Your task to perform on an android device: turn vacation reply on in the gmail app Image 0: 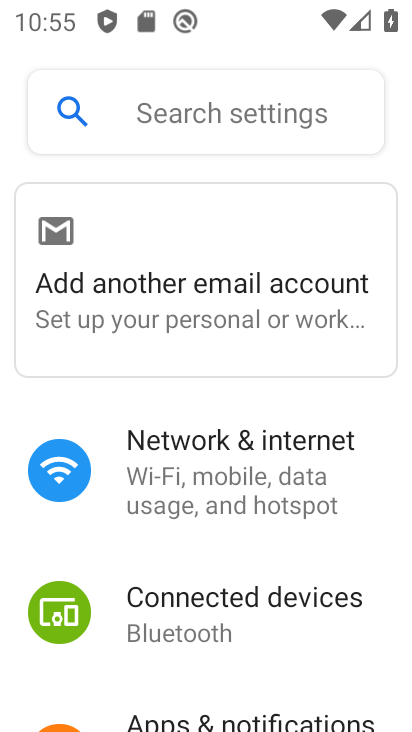
Step 0: press home button
Your task to perform on an android device: turn vacation reply on in the gmail app Image 1: 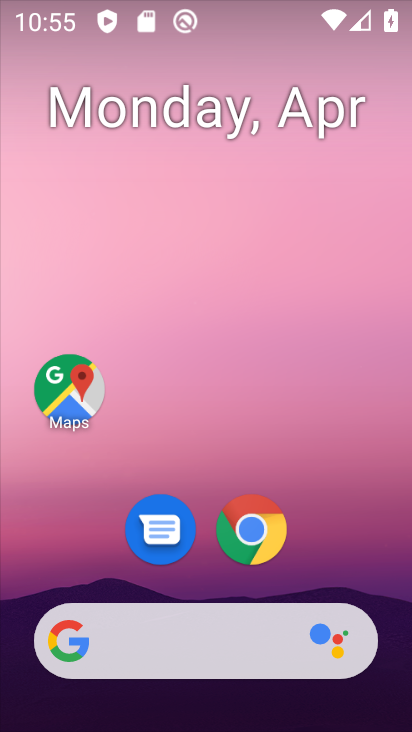
Step 1: drag from (357, 587) to (179, 25)
Your task to perform on an android device: turn vacation reply on in the gmail app Image 2: 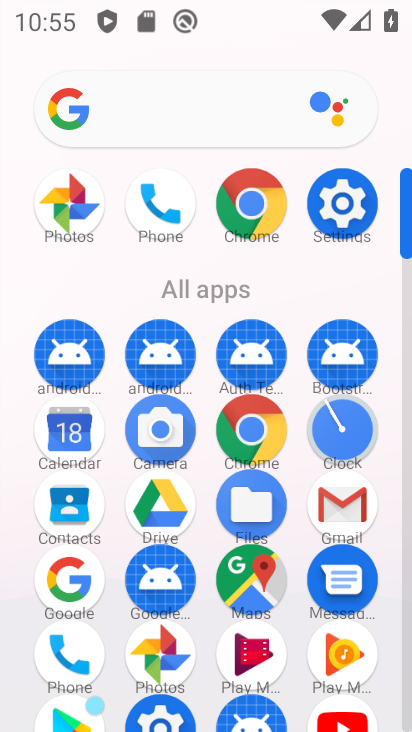
Step 2: click (341, 521)
Your task to perform on an android device: turn vacation reply on in the gmail app Image 3: 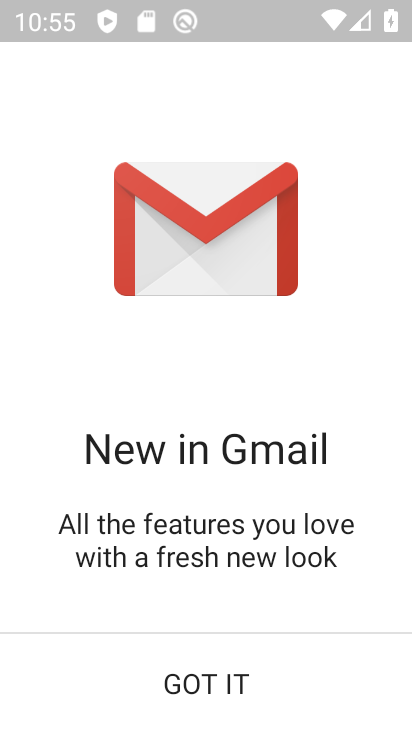
Step 3: click (193, 703)
Your task to perform on an android device: turn vacation reply on in the gmail app Image 4: 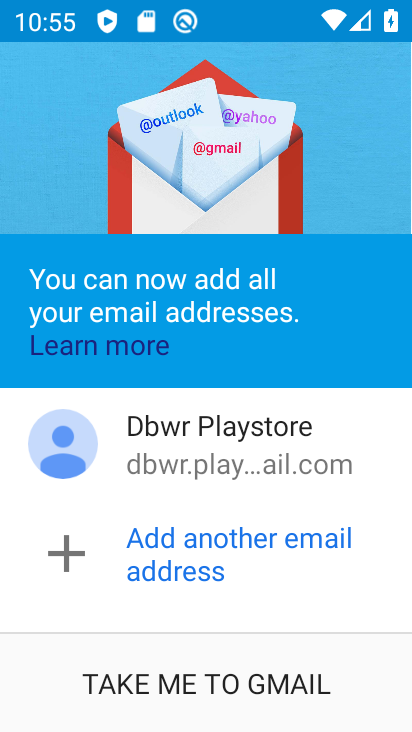
Step 4: click (280, 670)
Your task to perform on an android device: turn vacation reply on in the gmail app Image 5: 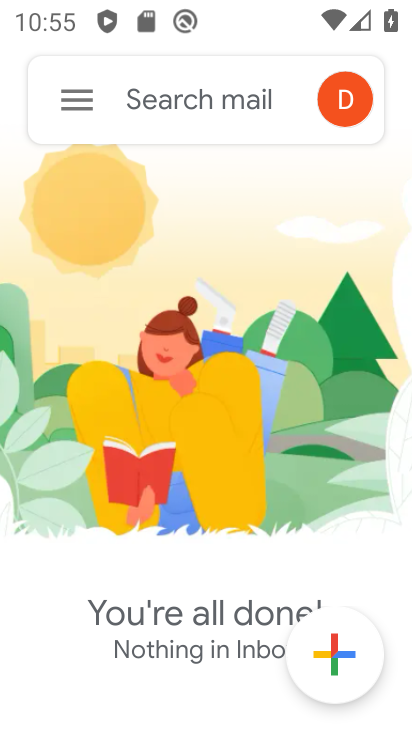
Step 5: click (59, 99)
Your task to perform on an android device: turn vacation reply on in the gmail app Image 6: 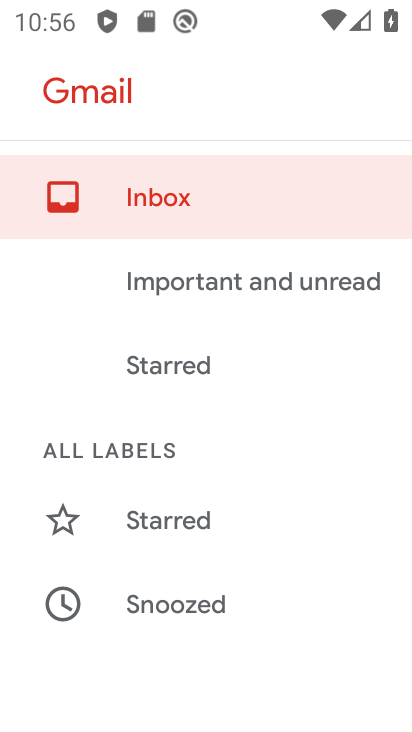
Step 6: drag from (122, 621) to (184, 139)
Your task to perform on an android device: turn vacation reply on in the gmail app Image 7: 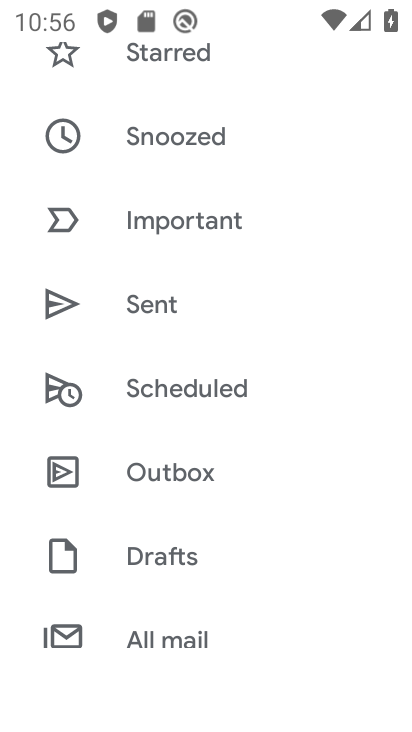
Step 7: drag from (160, 615) to (184, 90)
Your task to perform on an android device: turn vacation reply on in the gmail app Image 8: 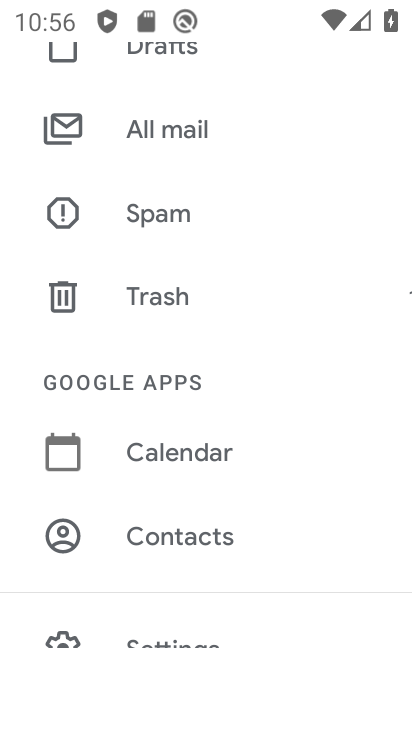
Step 8: click (147, 634)
Your task to perform on an android device: turn vacation reply on in the gmail app Image 9: 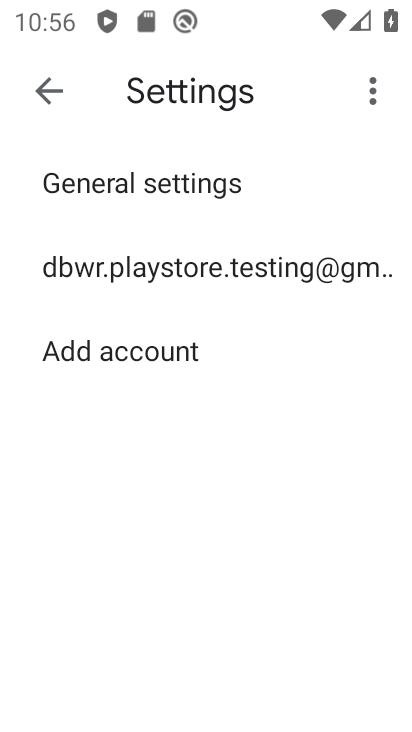
Step 9: click (223, 272)
Your task to perform on an android device: turn vacation reply on in the gmail app Image 10: 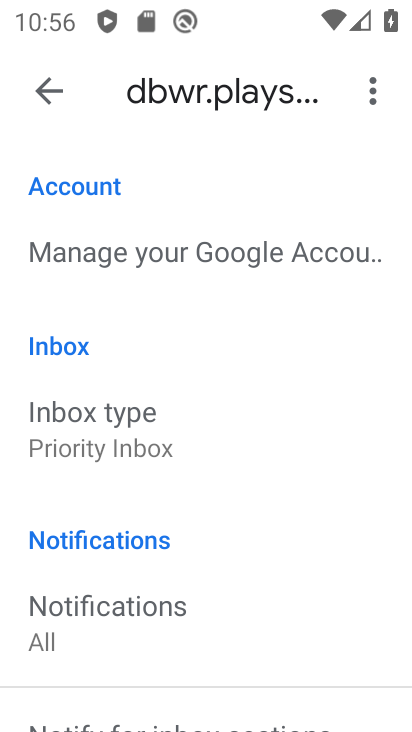
Step 10: drag from (152, 625) to (234, 165)
Your task to perform on an android device: turn vacation reply on in the gmail app Image 11: 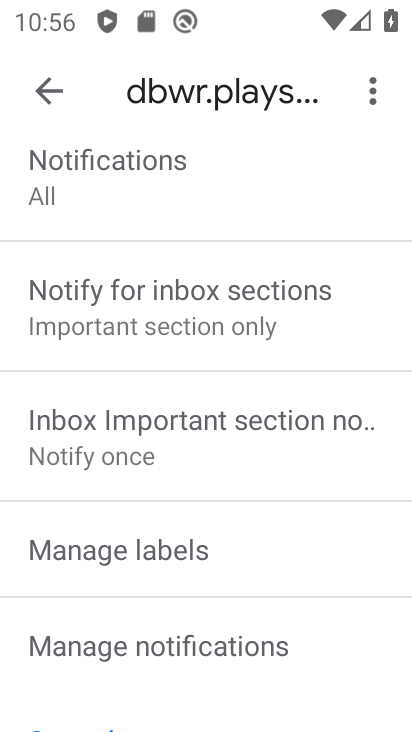
Step 11: drag from (154, 643) to (241, 183)
Your task to perform on an android device: turn vacation reply on in the gmail app Image 12: 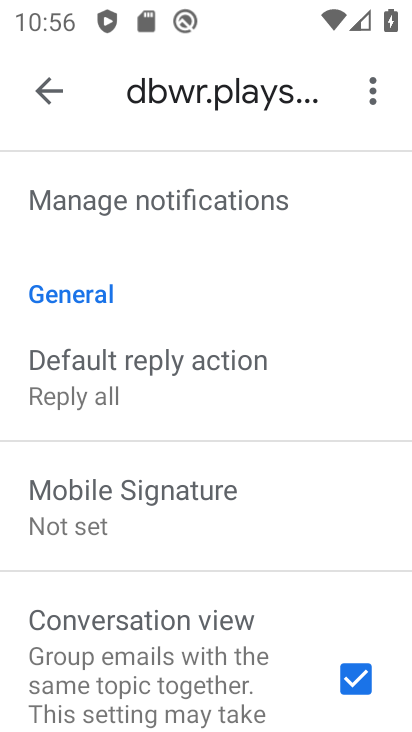
Step 12: drag from (148, 643) to (210, 127)
Your task to perform on an android device: turn vacation reply on in the gmail app Image 13: 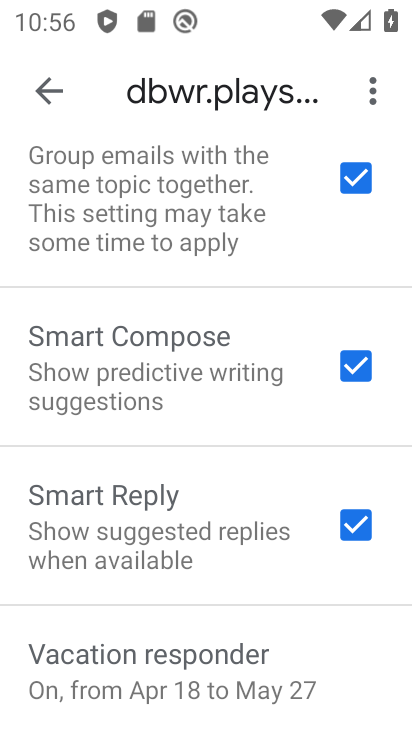
Step 13: drag from (171, 612) to (217, 386)
Your task to perform on an android device: turn vacation reply on in the gmail app Image 14: 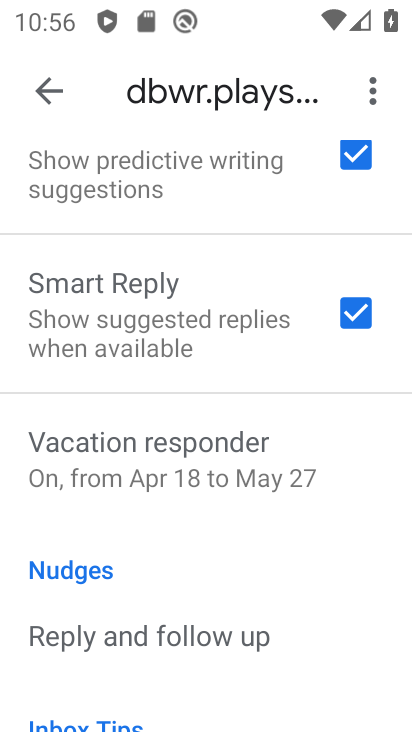
Step 14: click (176, 471)
Your task to perform on an android device: turn vacation reply on in the gmail app Image 15: 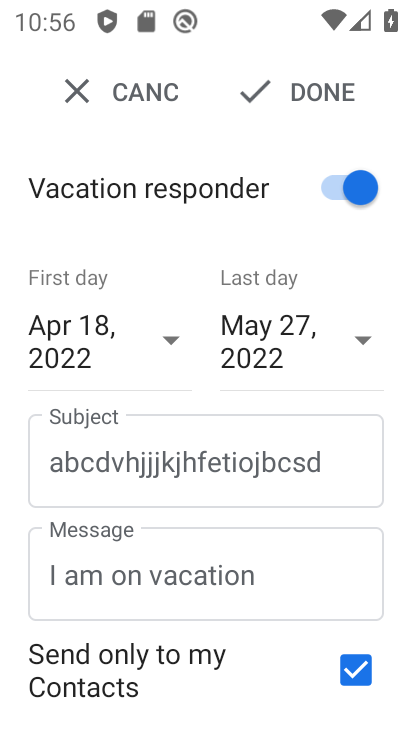
Step 15: task complete